Your task to perform on an android device: Open CNN.com Image 0: 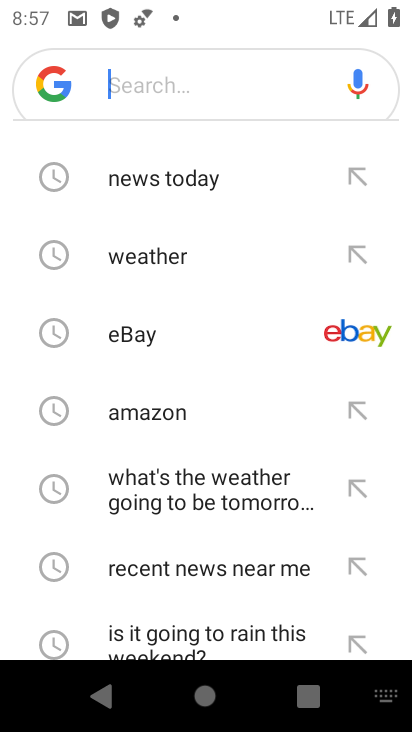
Step 0: press back button
Your task to perform on an android device: Open CNN.com Image 1: 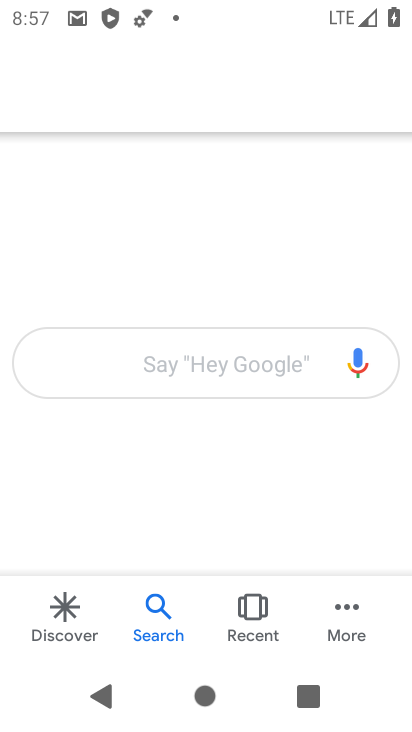
Step 1: press back button
Your task to perform on an android device: Open CNN.com Image 2: 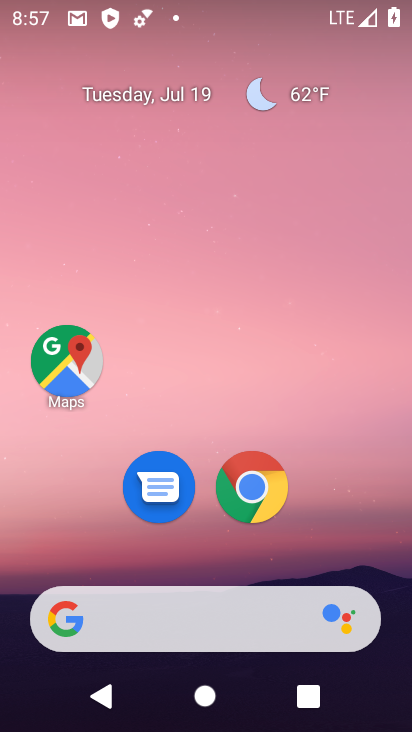
Step 2: click (270, 482)
Your task to perform on an android device: Open CNN.com Image 3: 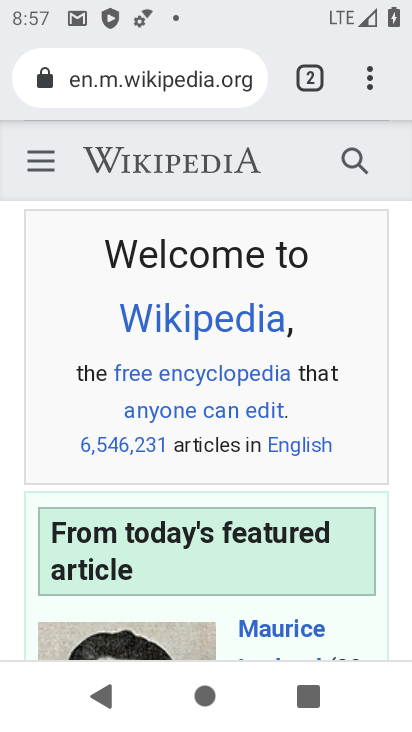
Step 3: click (303, 84)
Your task to perform on an android device: Open CNN.com Image 4: 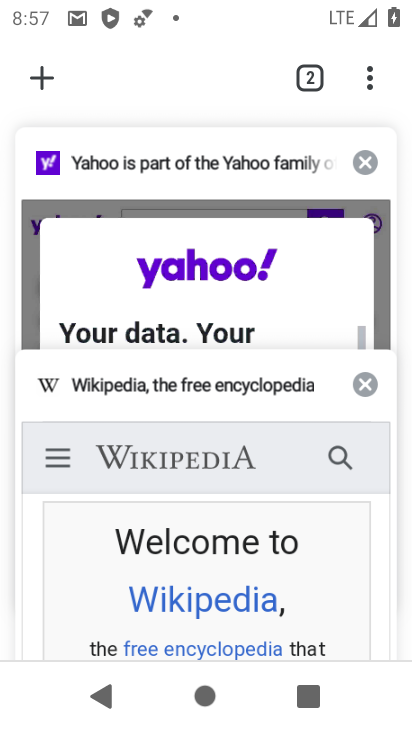
Step 4: click (38, 80)
Your task to perform on an android device: Open CNN.com Image 5: 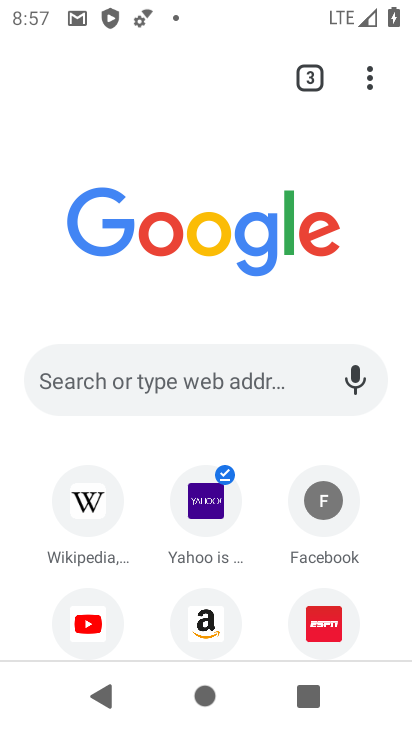
Step 5: click (131, 385)
Your task to perform on an android device: Open CNN.com Image 6: 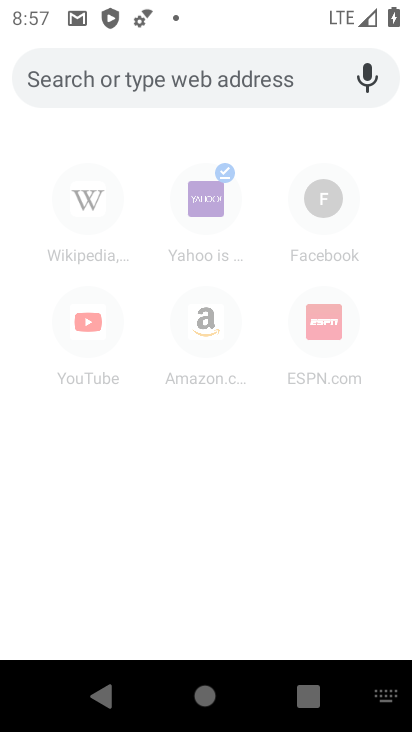
Step 6: type "cnn.com"
Your task to perform on an android device: Open CNN.com Image 7: 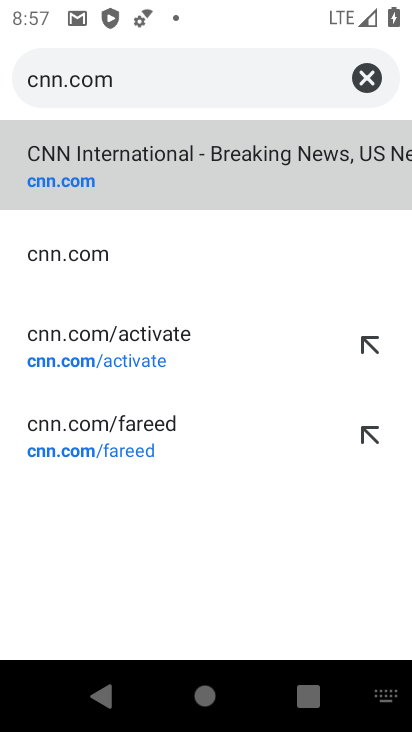
Step 7: click (156, 178)
Your task to perform on an android device: Open CNN.com Image 8: 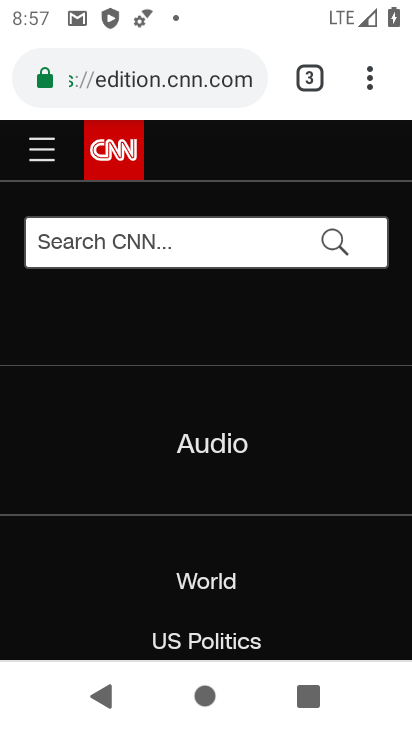
Step 8: task complete